Your task to perform on an android device: delete the emails in spam in the gmail app Image 0: 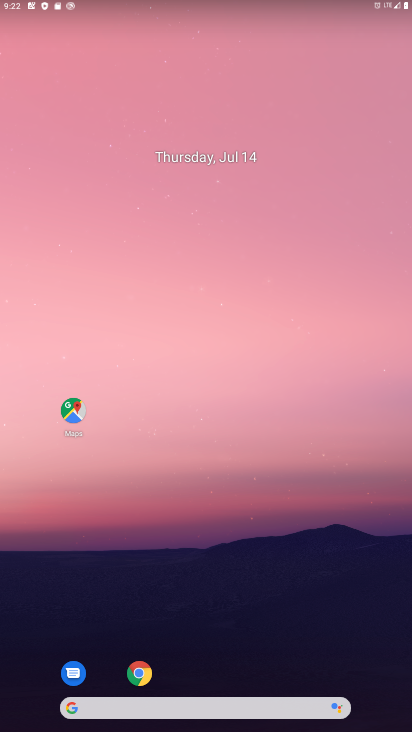
Step 0: drag from (190, 706) to (180, 296)
Your task to perform on an android device: delete the emails in spam in the gmail app Image 1: 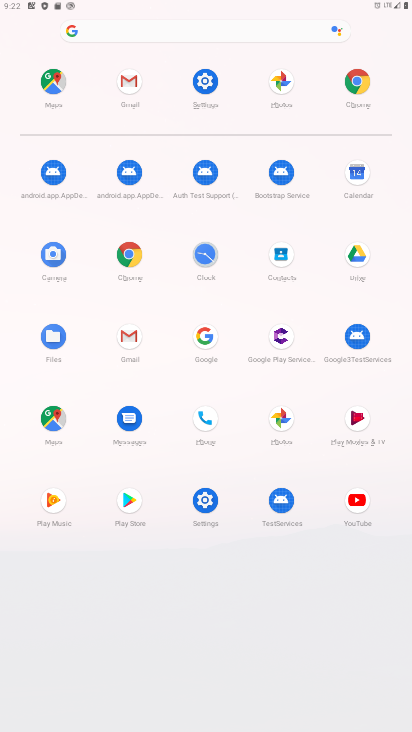
Step 1: click (127, 74)
Your task to perform on an android device: delete the emails in spam in the gmail app Image 2: 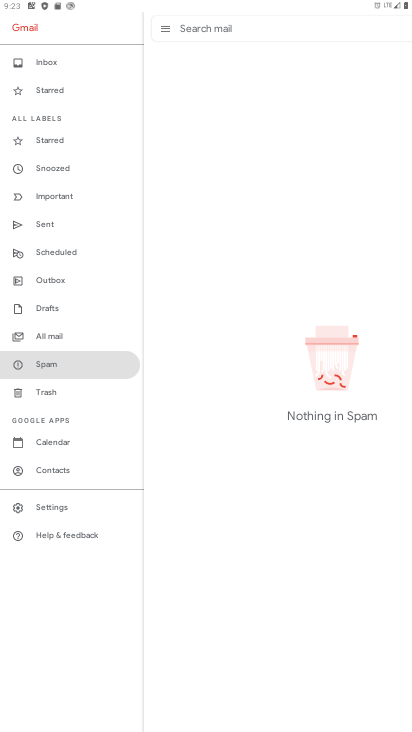
Step 2: task complete